Your task to perform on an android device: delete browsing data in the chrome app Image 0: 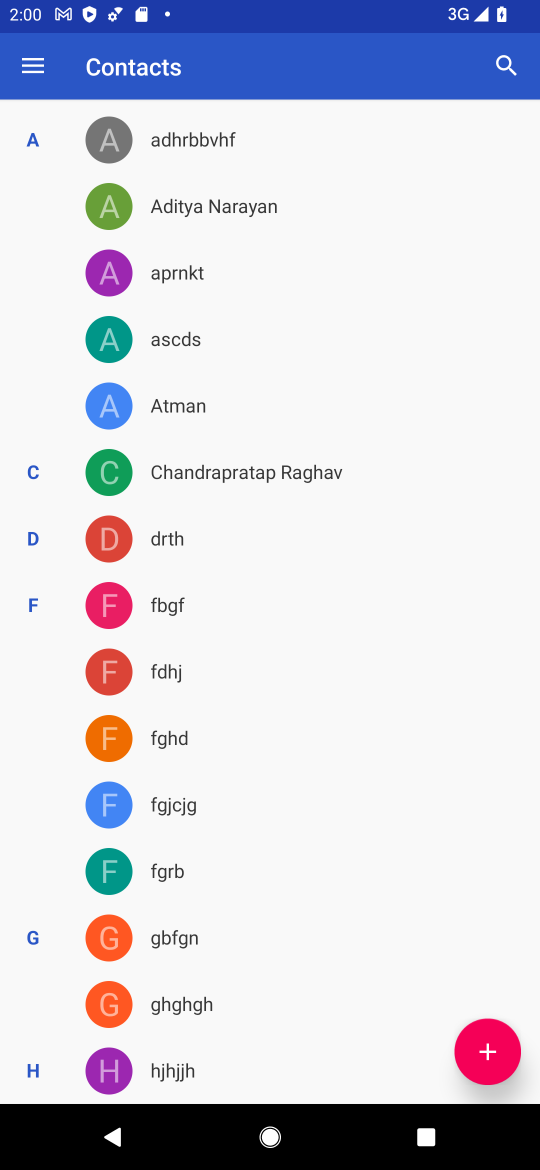
Step 0: press home button
Your task to perform on an android device: delete browsing data in the chrome app Image 1: 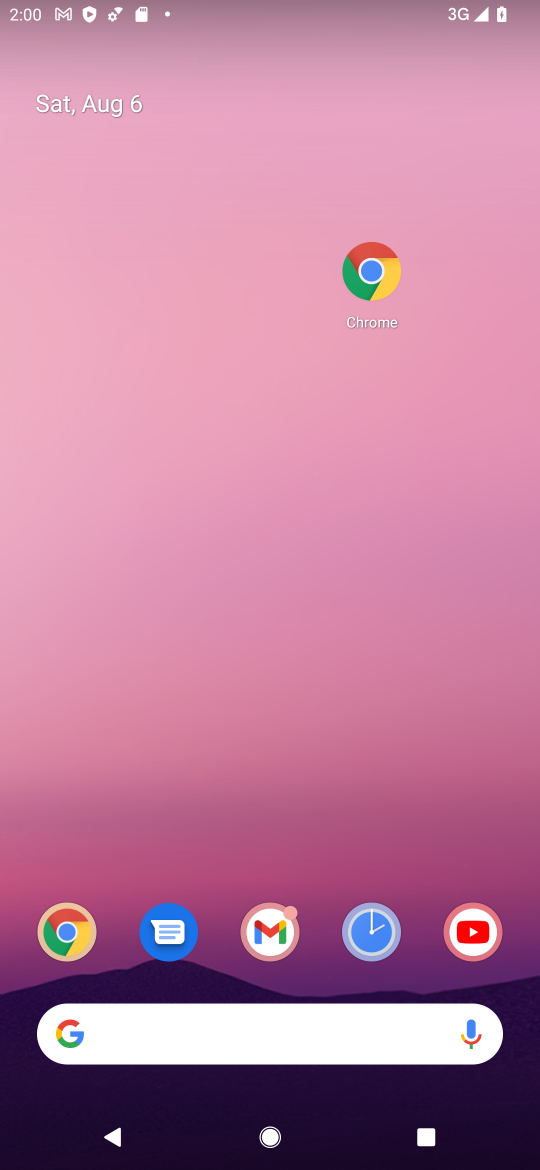
Step 1: drag from (322, 969) to (449, 115)
Your task to perform on an android device: delete browsing data in the chrome app Image 2: 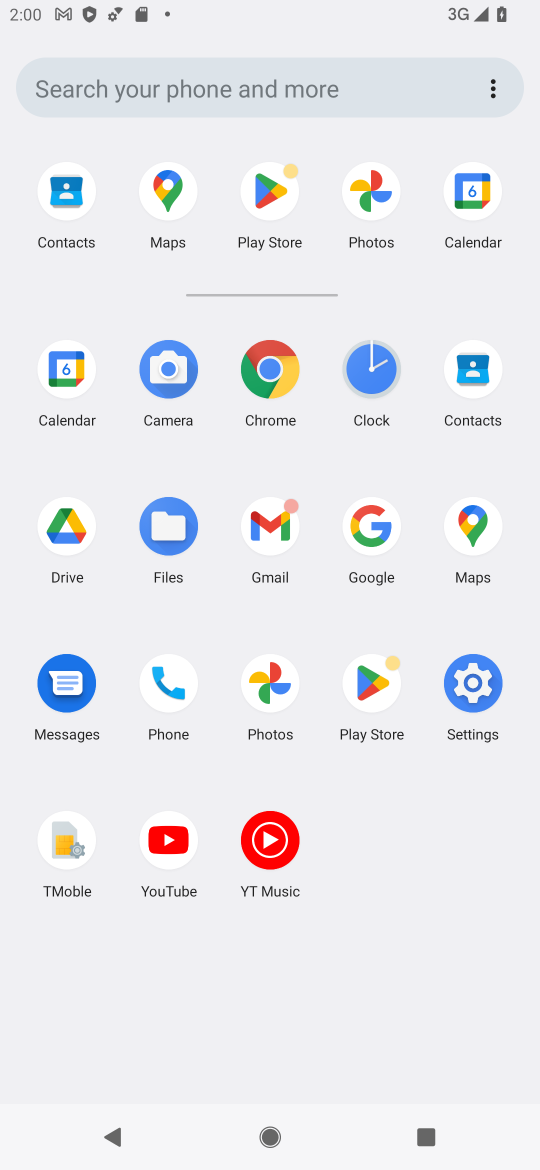
Step 2: click (280, 366)
Your task to perform on an android device: delete browsing data in the chrome app Image 3: 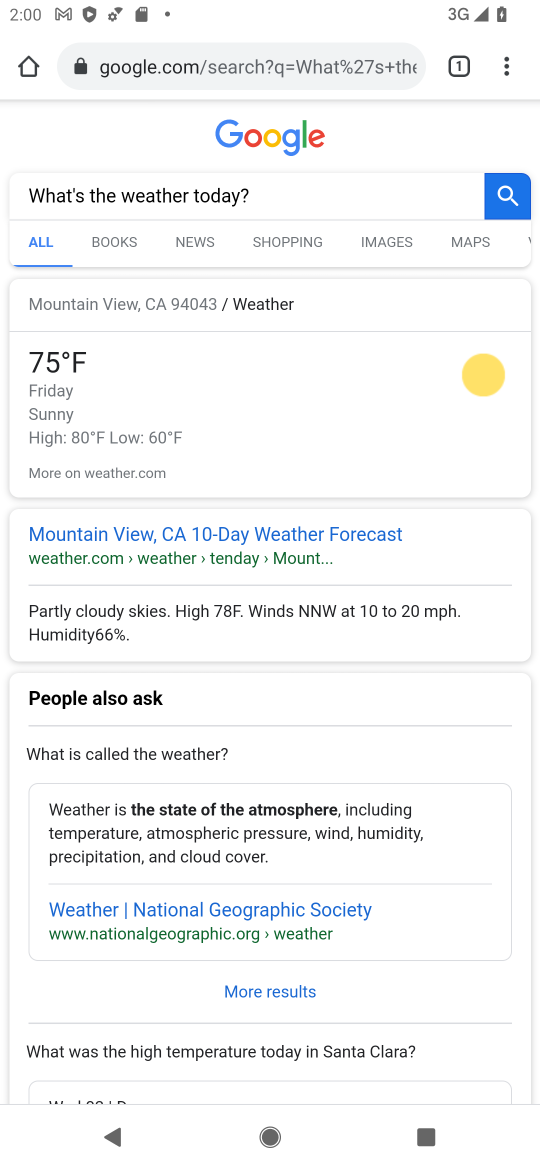
Step 3: drag from (502, 61) to (311, 870)
Your task to perform on an android device: delete browsing data in the chrome app Image 4: 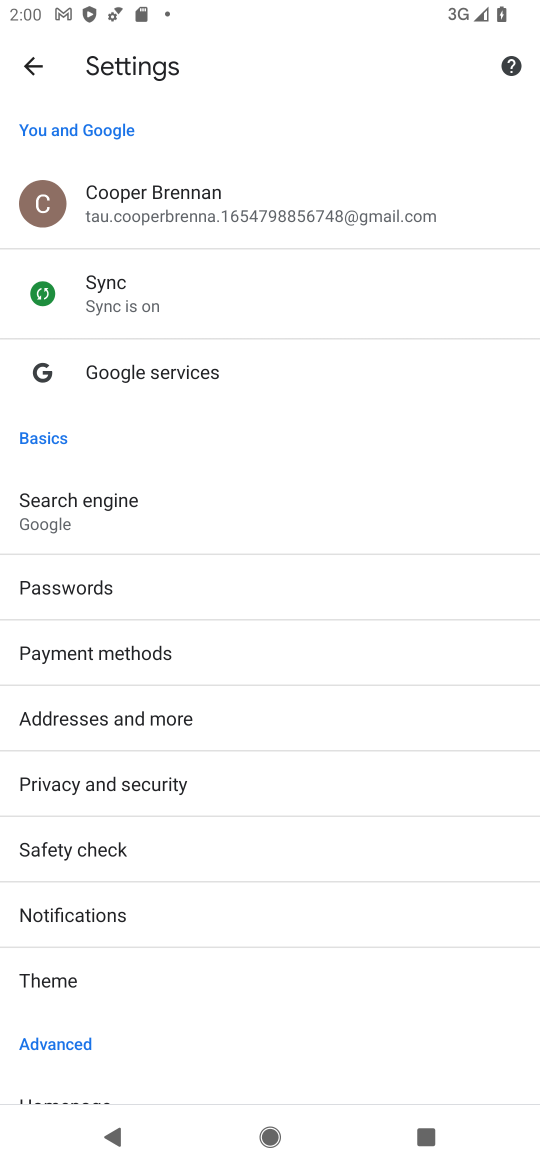
Step 4: drag from (166, 998) to (108, 552)
Your task to perform on an android device: delete browsing data in the chrome app Image 5: 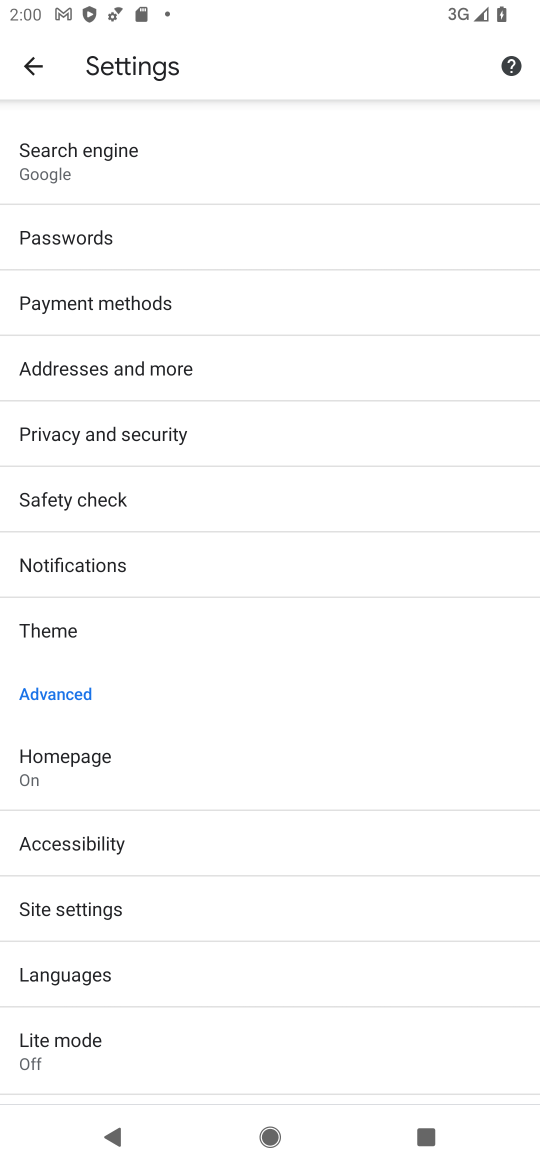
Step 5: click (85, 431)
Your task to perform on an android device: delete browsing data in the chrome app Image 6: 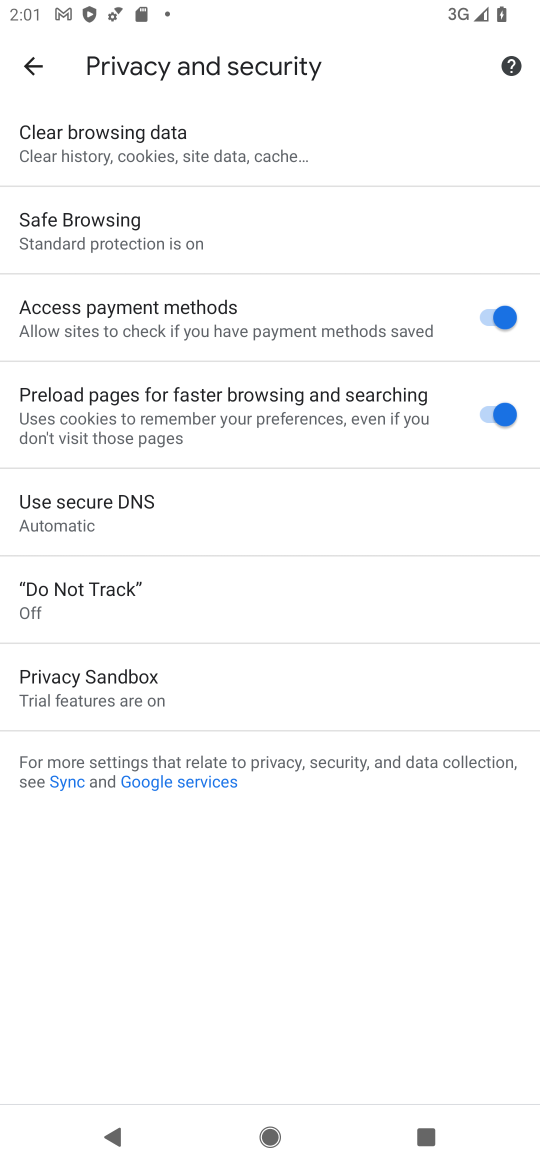
Step 6: click (163, 137)
Your task to perform on an android device: delete browsing data in the chrome app Image 7: 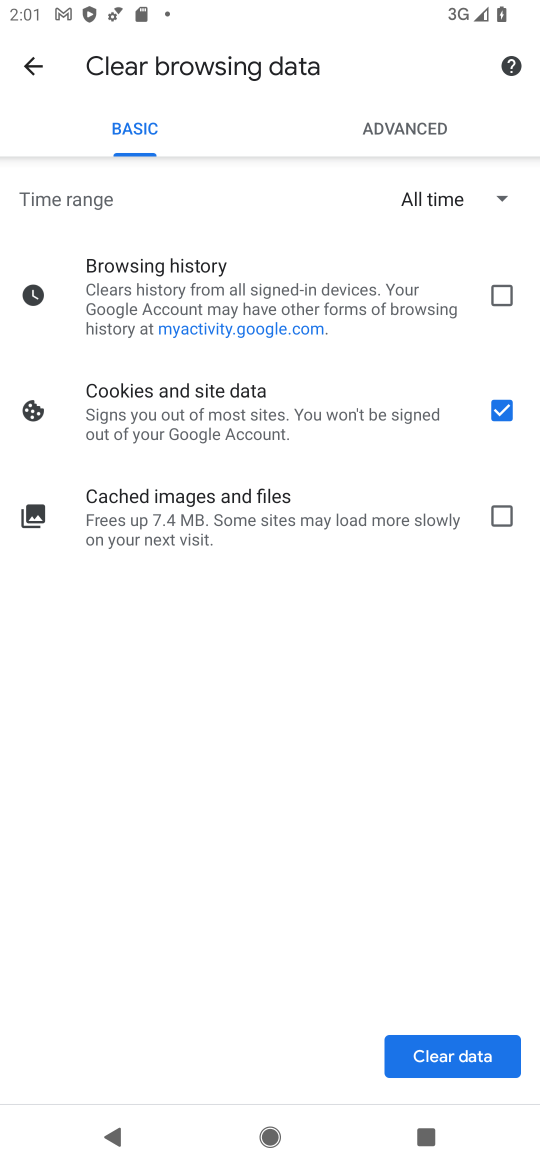
Step 7: click (495, 298)
Your task to perform on an android device: delete browsing data in the chrome app Image 8: 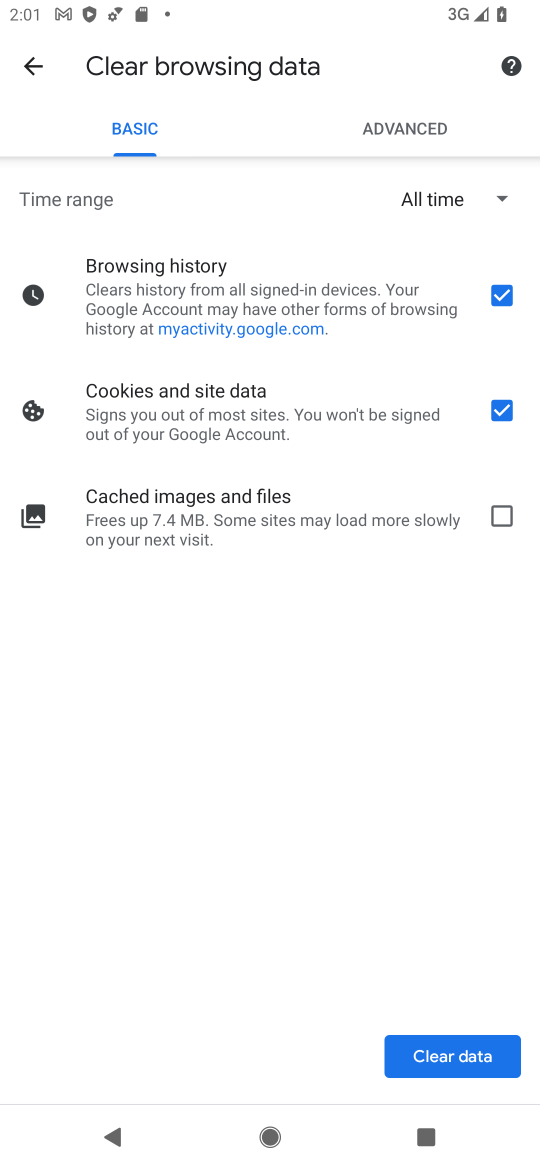
Step 8: click (480, 1044)
Your task to perform on an android device: delete browsing data in the chrome app Image 9: 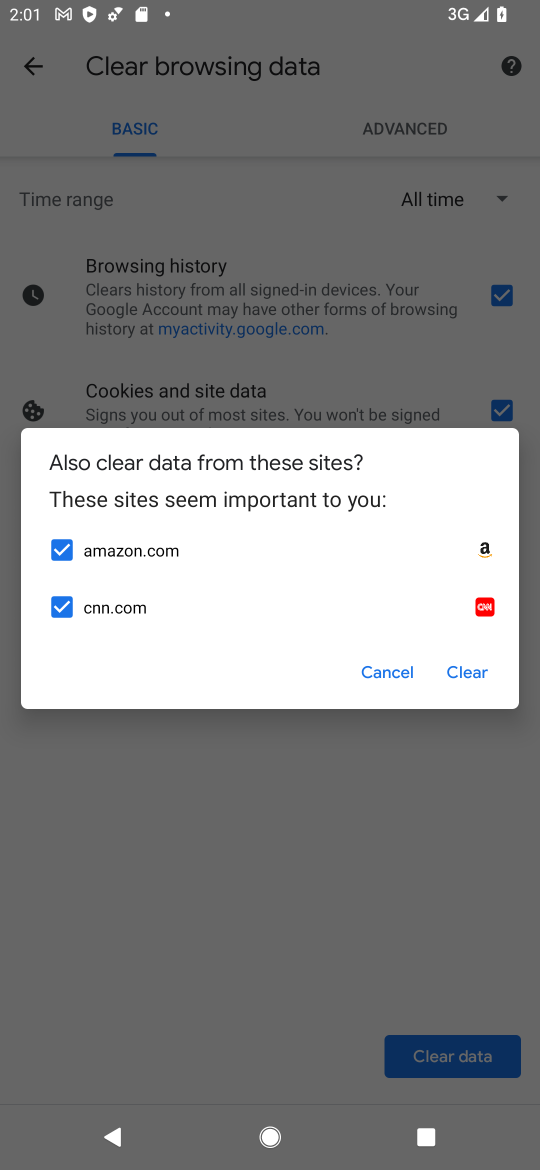
Step 9: click (468, 678)
Your task to perform on an android device: delete browsing data in the chrome app Image 10: 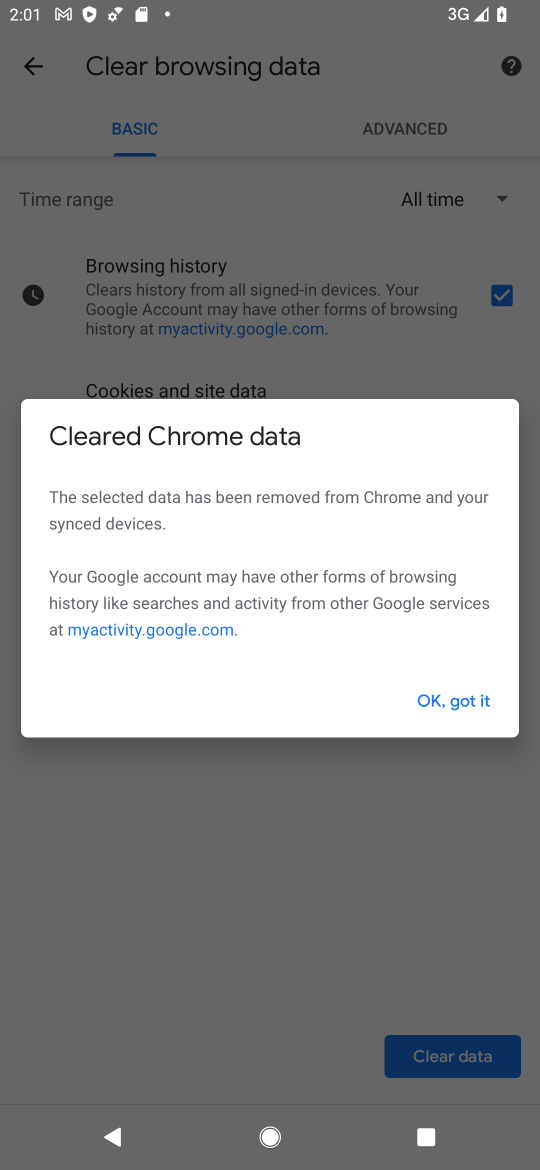
Step 10: click (463, 702)
Your task to perform on an android device: delete browsing data in the chrome app Image 11: 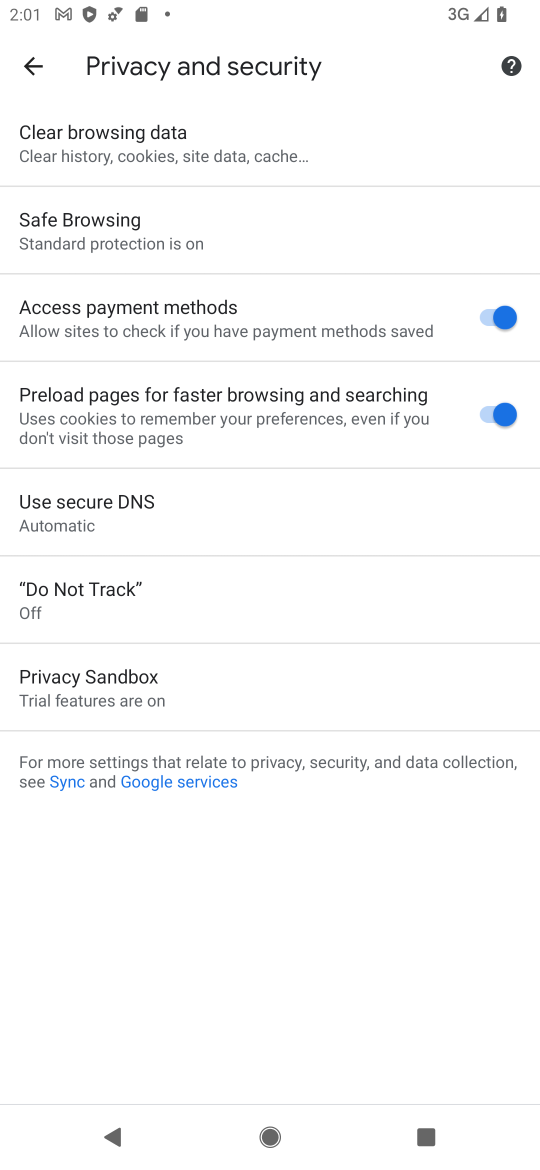
Step 11: task complete